Your task to perform on an android device: Open network settings Image 0: 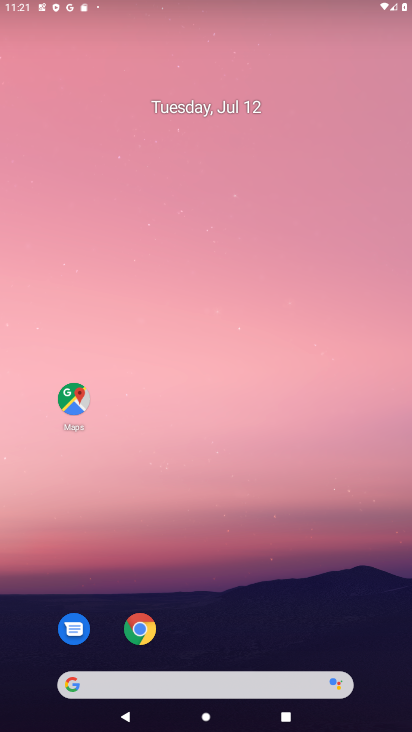
Step 0: drag from (258, 588) to (266, 252)
Your task to perform on an android device: Open network settings Image 1: 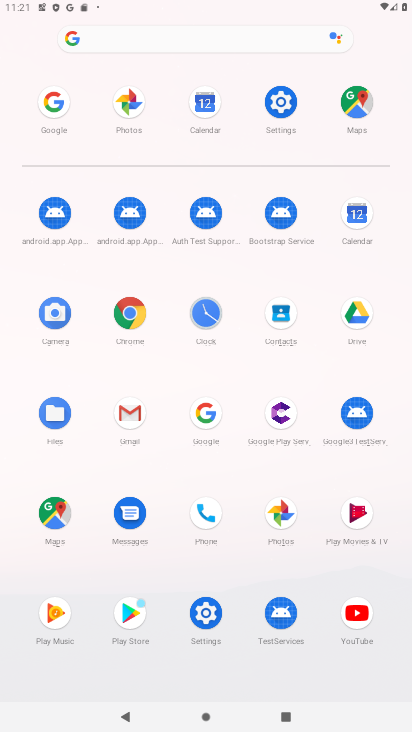
Step 1: click (279, 98)
Your task to perform on an android device: Open network settings Image 2: 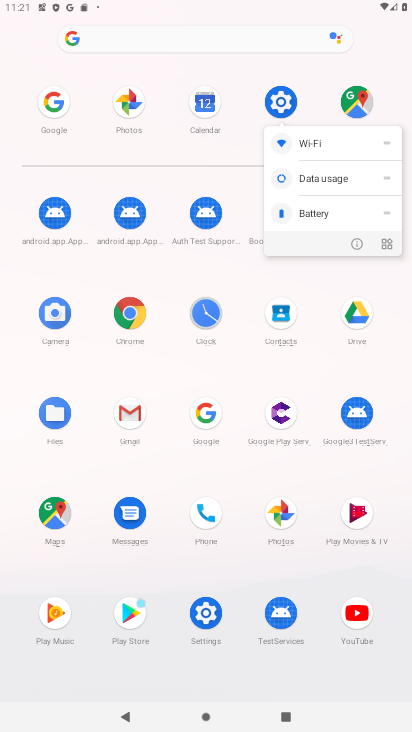
Step 2: click (275, 94)
Your task to perform on an android device: Open network settings Image 3: 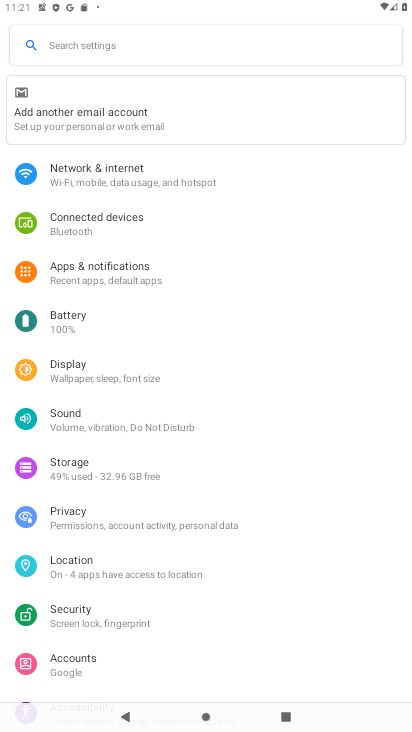
Step 3: click (108, 174)
Your task to perform on an android device: Open network settings Image 4: 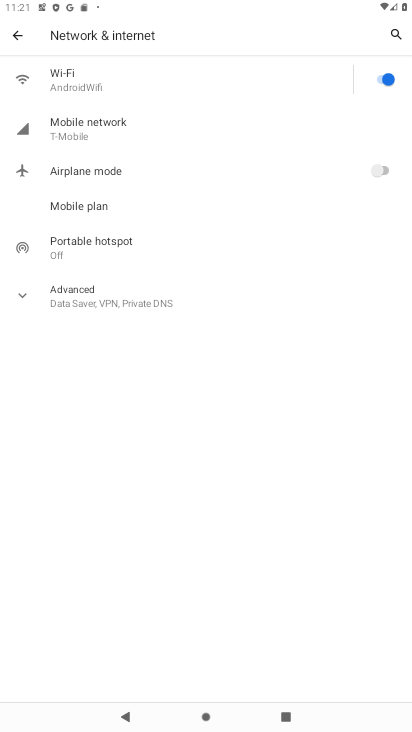
Step 4: task complete